Your task to perform on an android device: Open Android settings Image 0: 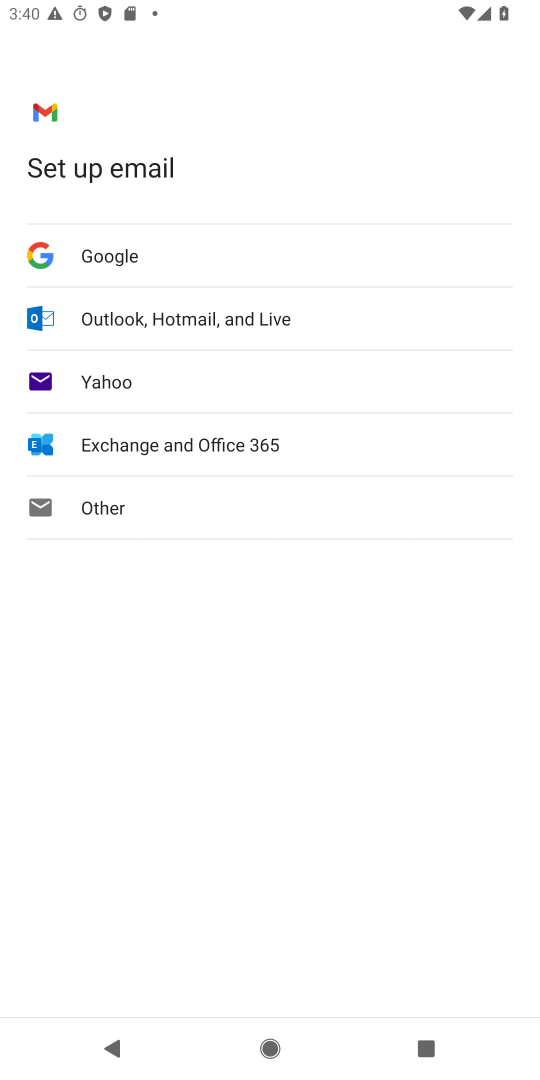
Step 0: press home button
Your task to perform on an android device: Open Android settings Image 1: 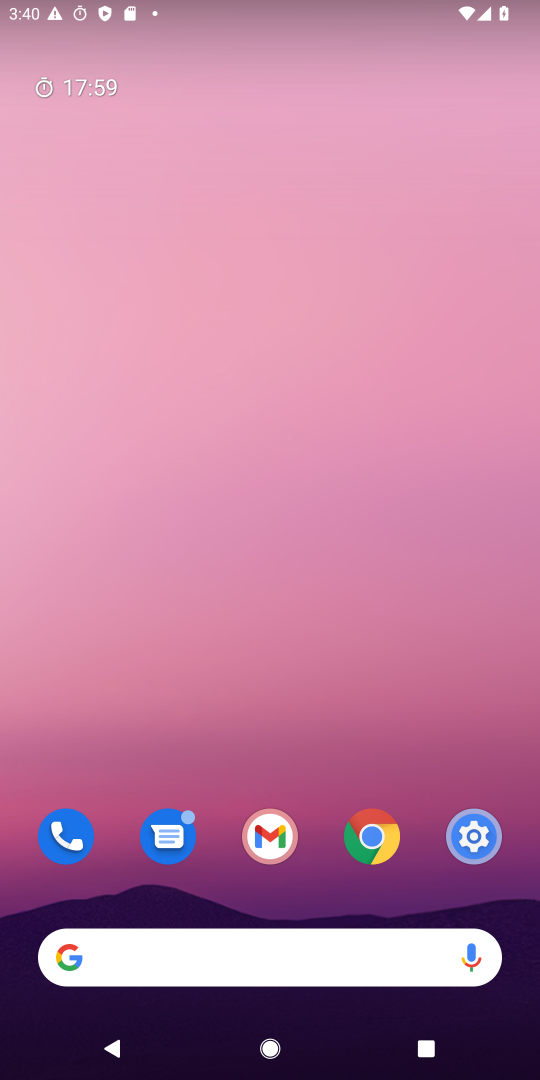
Step 1: click (447, 842)
Your task to perform on an android device: Open Android settings Image 2: 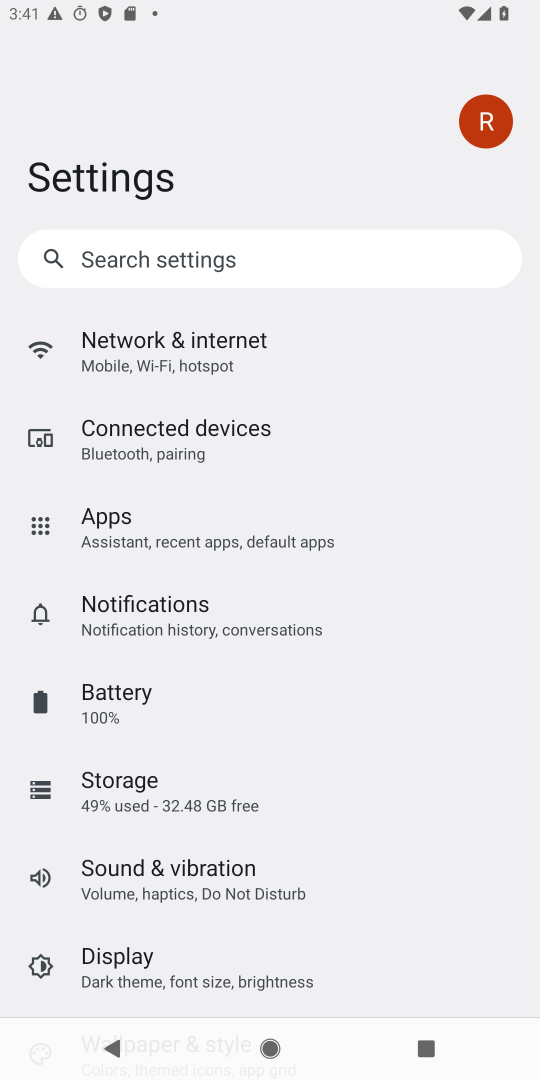
Step 2: drag from (242, 677) to (282, 168)
Your task to perform on an android device: Open Android settings Image 3: 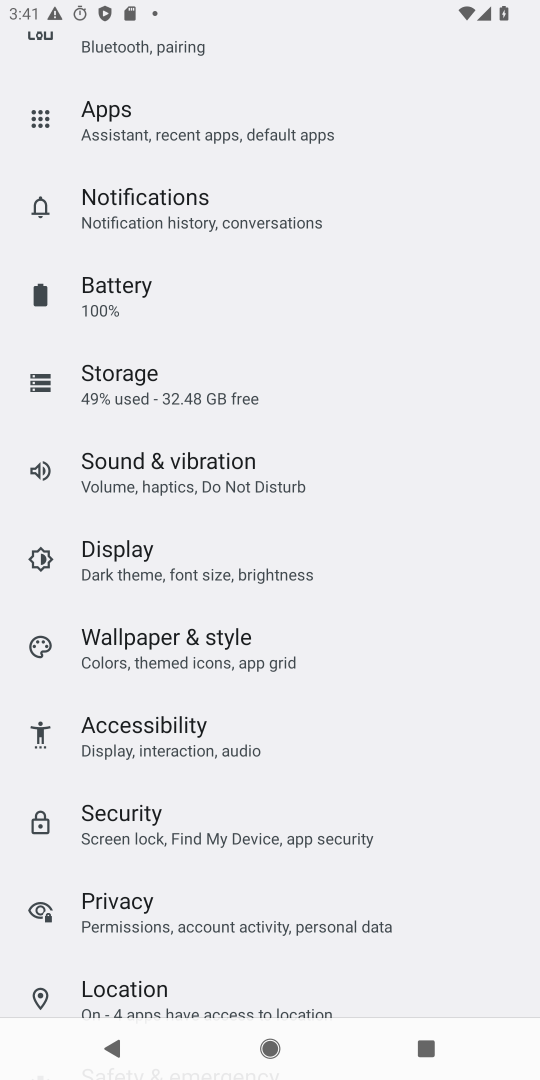
Step 3: drag from (227, 805) to (230, 241)
Your task to perform on an android device: Open Android settings Image 4: 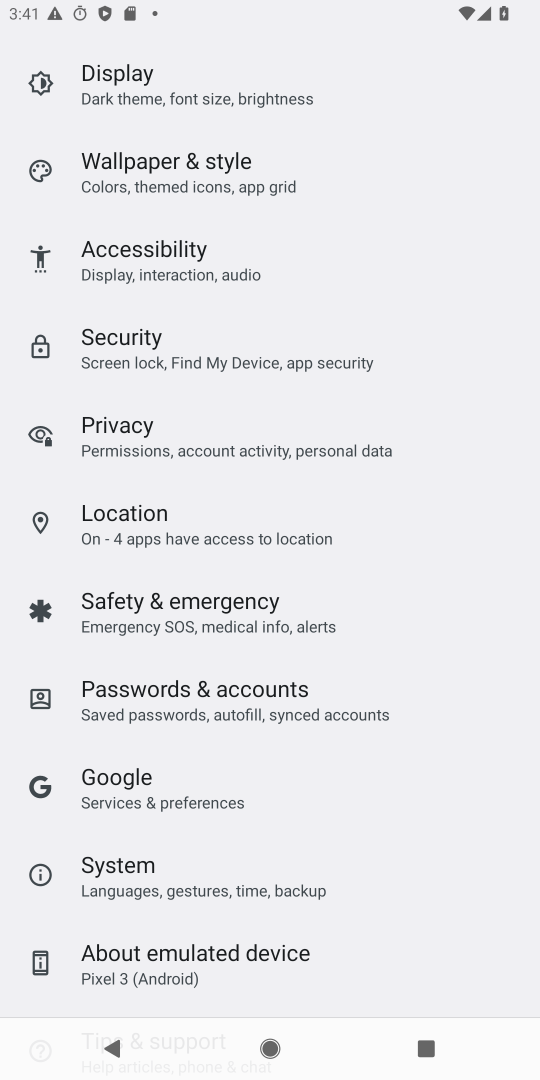
Step 4: click (186, 965)
Your task to perform on an android device: Open Android settings Image 5: 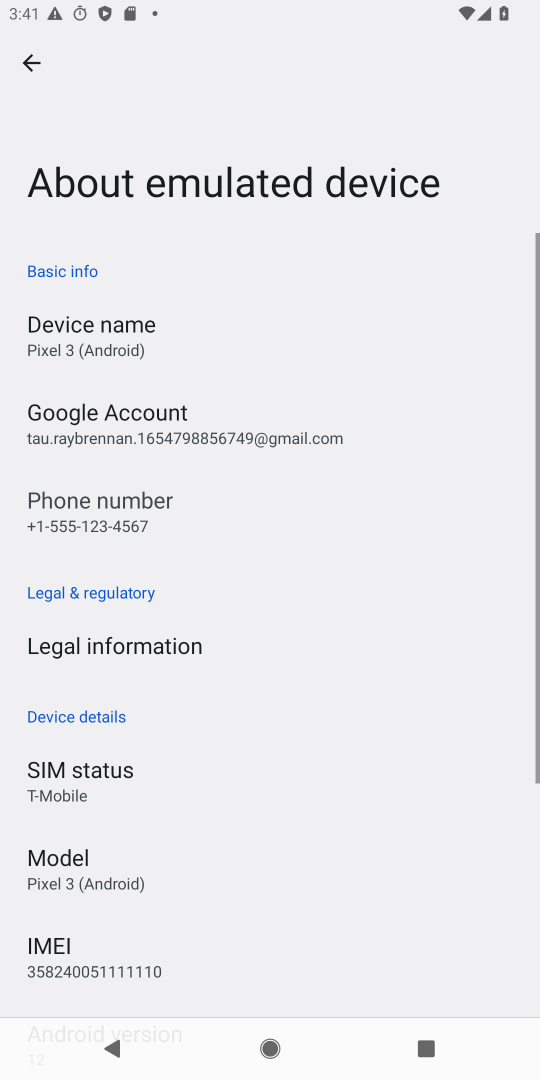
Step 5: drag from (156, 808) to (173, 370)
Your task to perform on an android device: Open Android settings Image 6: 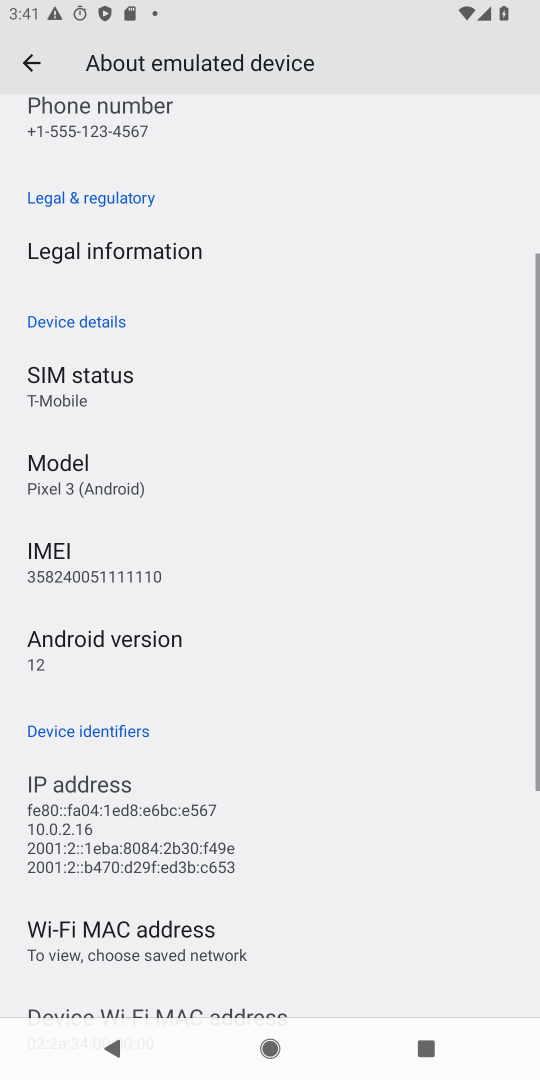
Step 6: click (108, 722)
Your task to perform on an android device: Open Android settings Image 7: 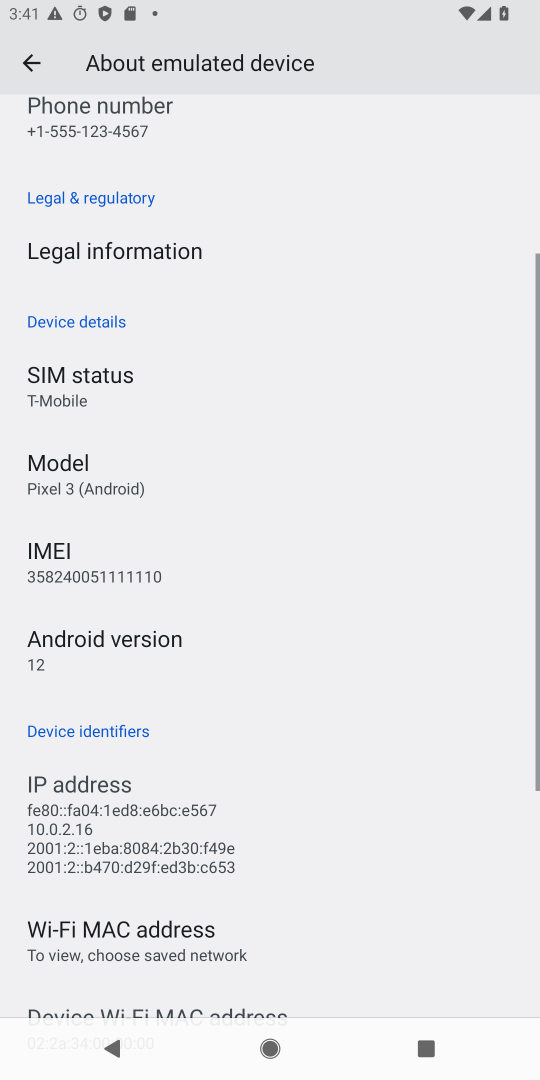
Step 7: click (110, 651)
Your task to perform on an android device: Open Android settings Image 8: 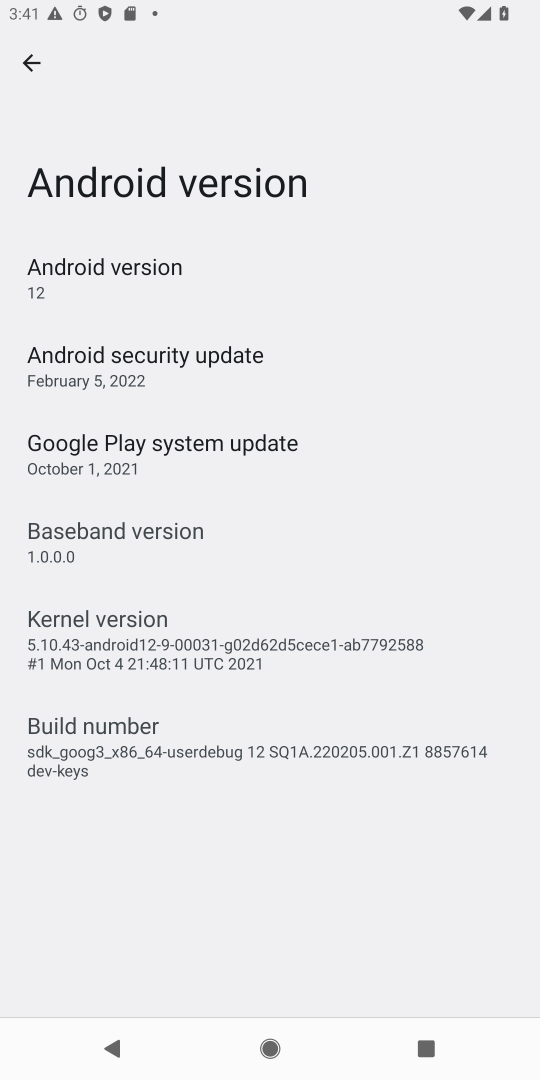
Step 8: task complete